Your task to perform on an android device: Open location settings Image 0: 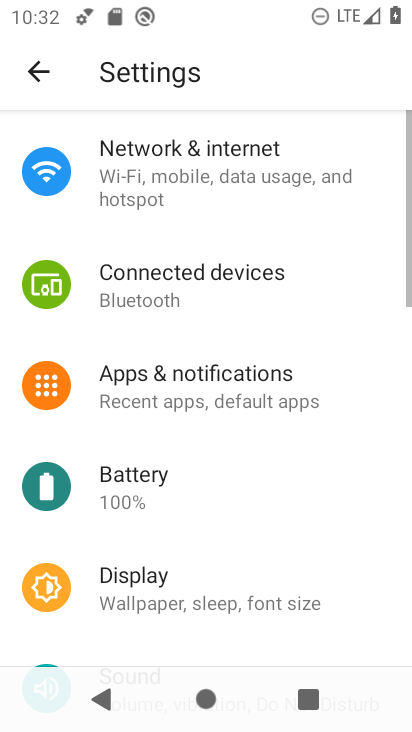
Step 0: drag from (200, 472) to (259, 380)
Your task to perform on an android device: Open location settings Image 1: 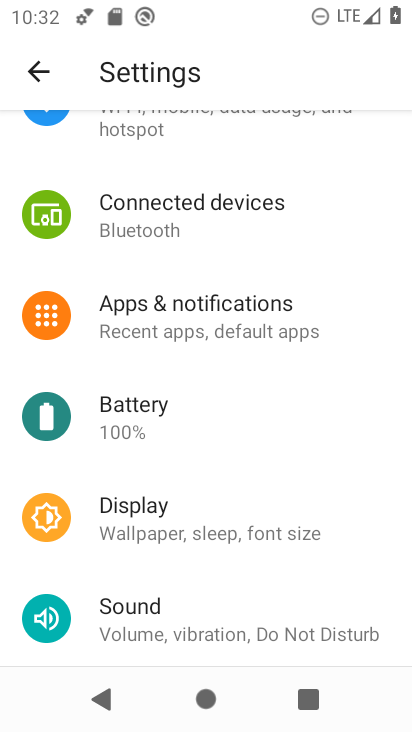
Step 1: drag from (191, 571) to (234, 459)
Your task to perform on an android device: Open location settings Image 2: 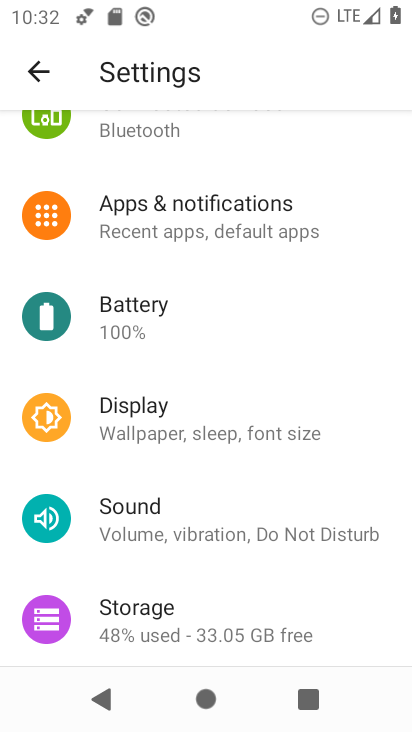
Step 2: drag from (181, 588) to (241, 429)
Your task to perform on an android device: Open location settings Image 3: 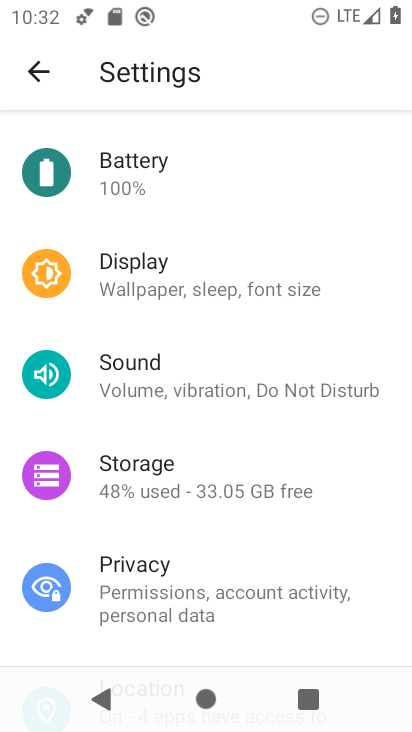
Step 3: drag from (218, 561) to (269, 373)
Your task to perform on an android device: Open location settings Image 4: 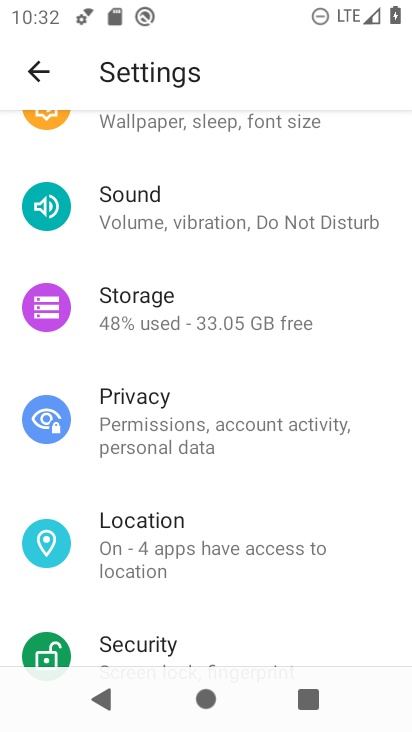
Step 4: click (147, 541)
Your task to perform on an android device: Open location settings Image 5: 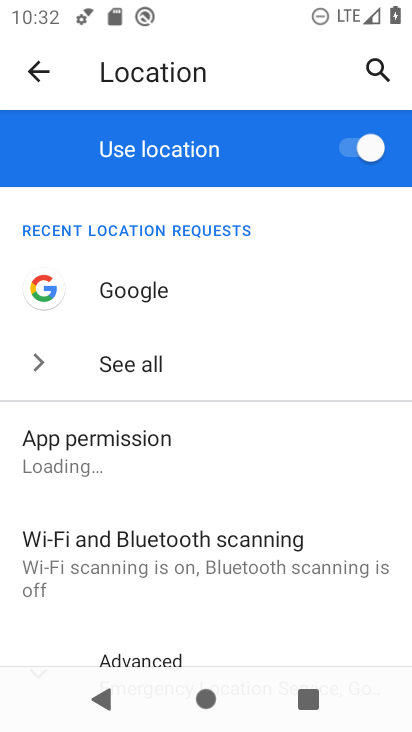
Step 5: task complete